Your task to perform on an android device: Open Google Chrome and click the shortcut for Amazon.com Image 0: 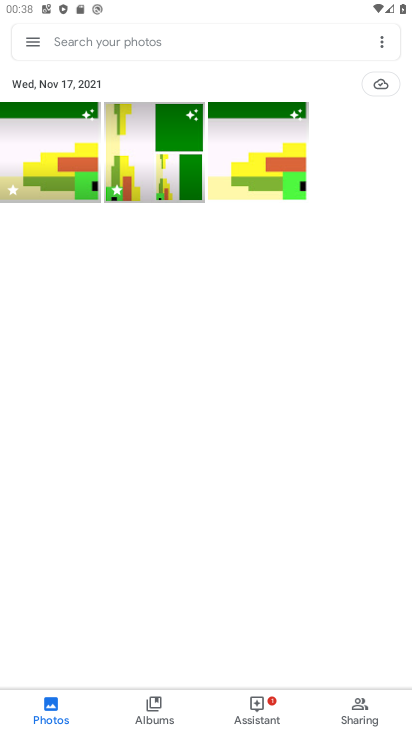
Step 0: press back button
Your task to perform on an android device: Open Google Chrome and click the shortcut for Amazon.com Image 1: 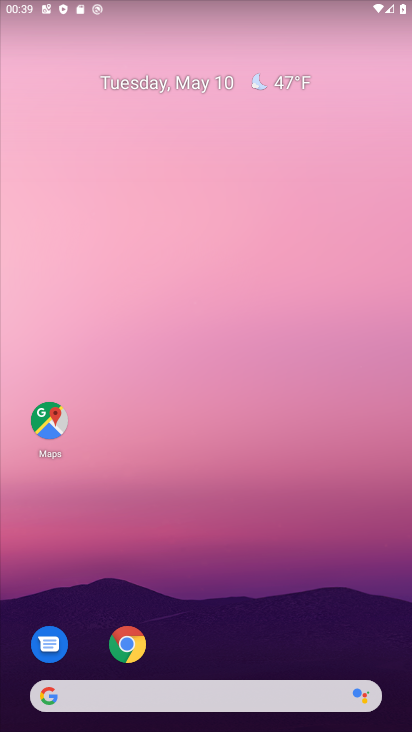
Step 1: click (130, 639)
Your task to perform on an android device: Open Google Chrome and click the shortcut for Amazon.com Image 2: 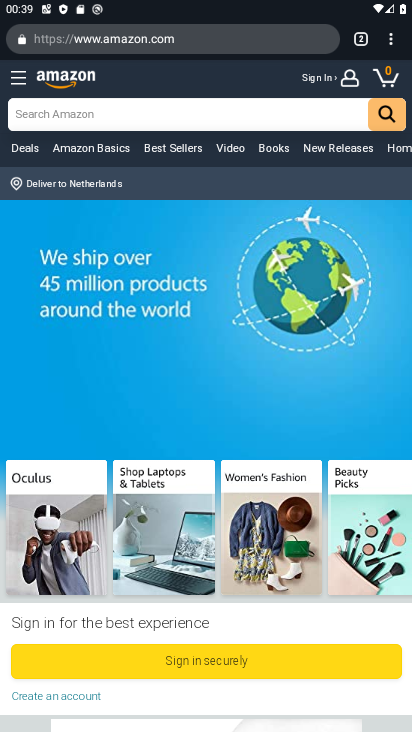
Step 2: task complete